Your task to perform on an android device: change your default location settings in chrome Image 0: 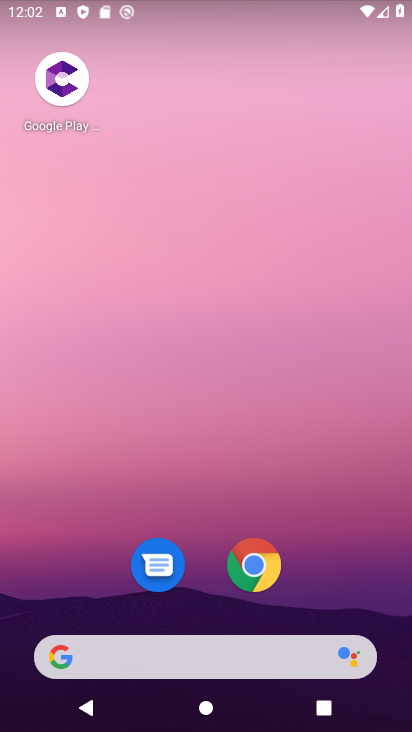
Step 0: drag from (272, 619) to (236, 131)
Your task to perform on an android device: change your default location settings in chrome Image 1: 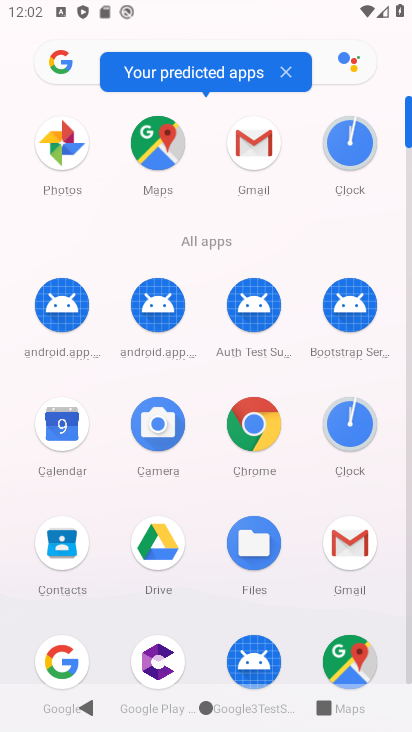
Step 1: click (267, 439)
Your task to perform on an android device: change your default location settings in chrome Image 2: 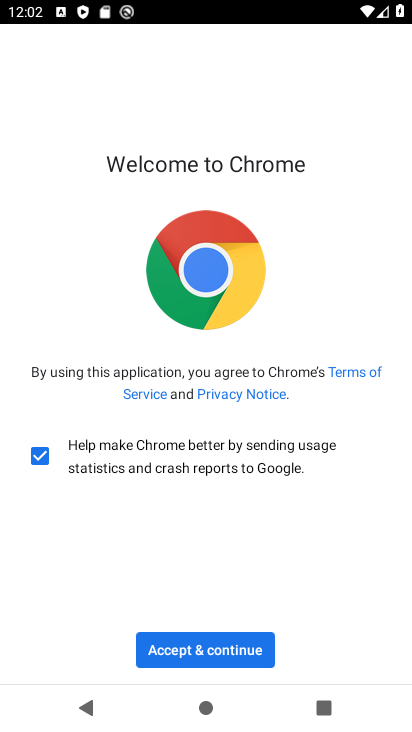
Step 2: click (229, 651)
Your task to perform on an android device: change your default location settings in chrome Image 3: 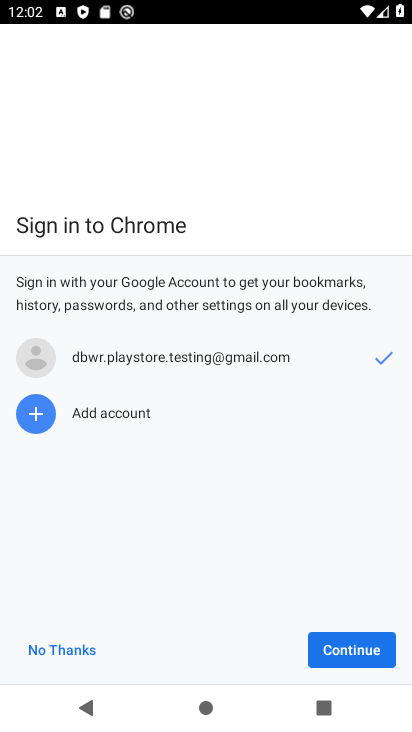
Step 3: click (322, 658)
Your task to perform on an android device: change your default location settings in chrome Image 4: 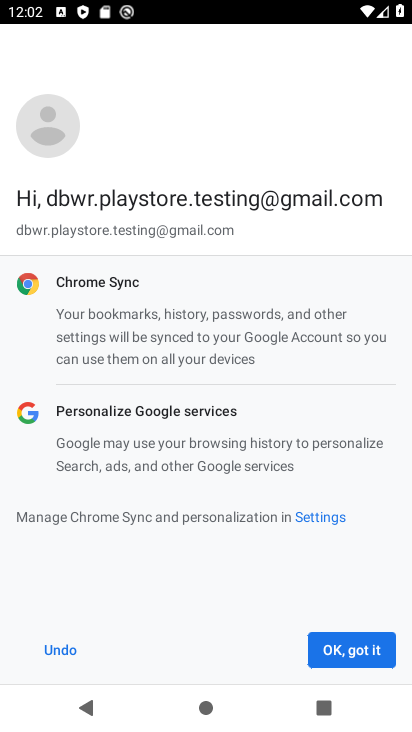
Step 4: click (322, 658)
Your task to perform on an android device: change your default location settings in chrome Image 5: 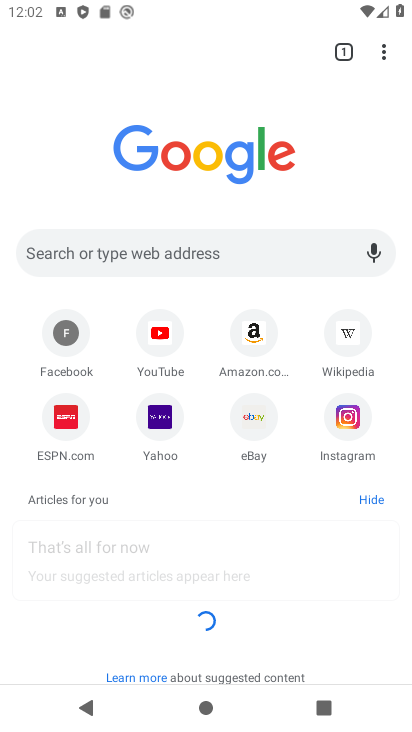
Step 5: click (389, 52)
Your task to perform on an android device: change your default location settings in chrome Image 6: 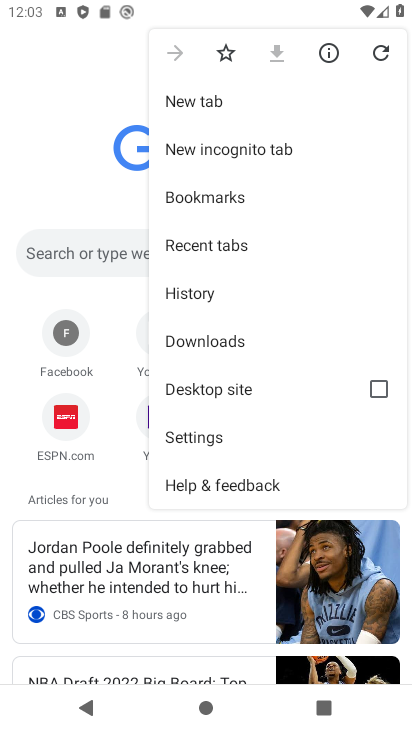
Step 6: drag from (319, 326) to (304, 185)
Your task to perform on an android device: change your default location settings in chrome Image 7: 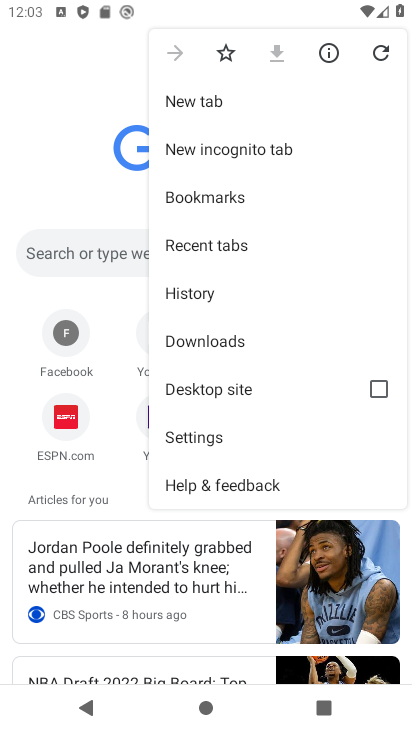
Step 7: click (215, 436)
Your task to perform on an android device: change your default location settings in chrome Image 8: 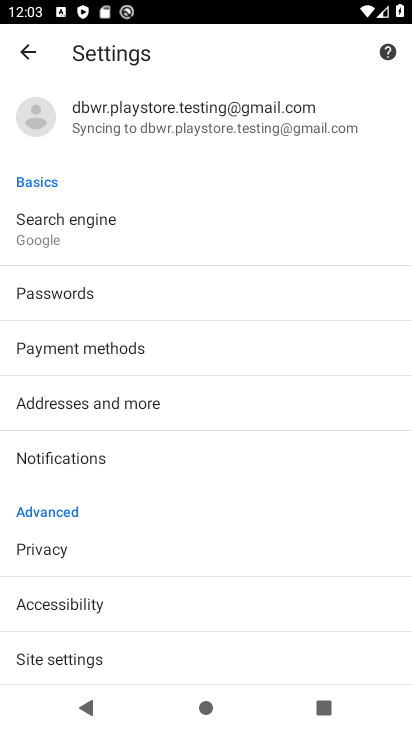
Step 8: click (66, 661)
Your task to perform on an android device: change your default location settings in chrome Image 9: 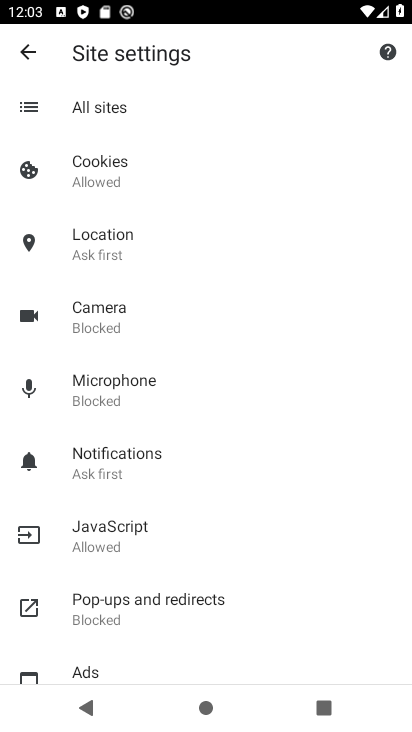
Step 9: click (113, 258)
Your task to perform on an android device: change your default location settings in chrome Image 10: 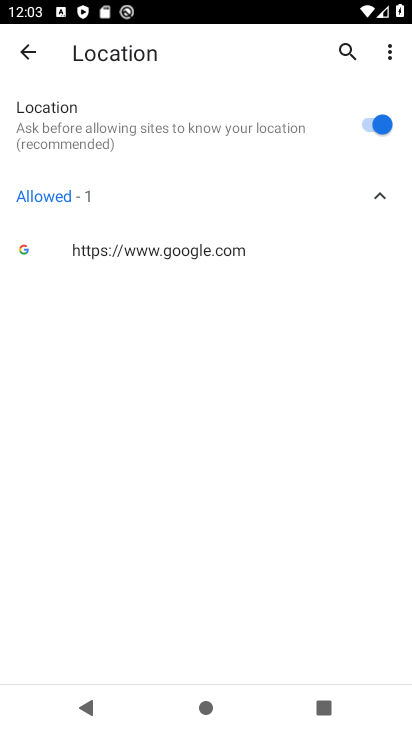
Step 10: click (358, 140)
Your task to perform on an android device: change your default location settings in chrome Image 11: 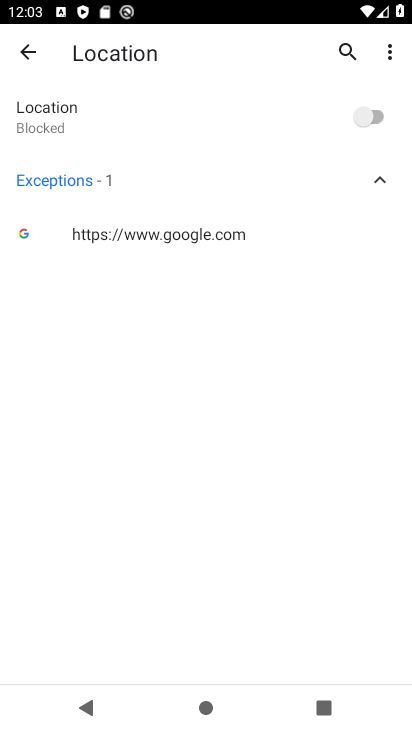
Step 11: task complete